Your task to perform on an android device: clear all cookies in the chrome app Image 0: 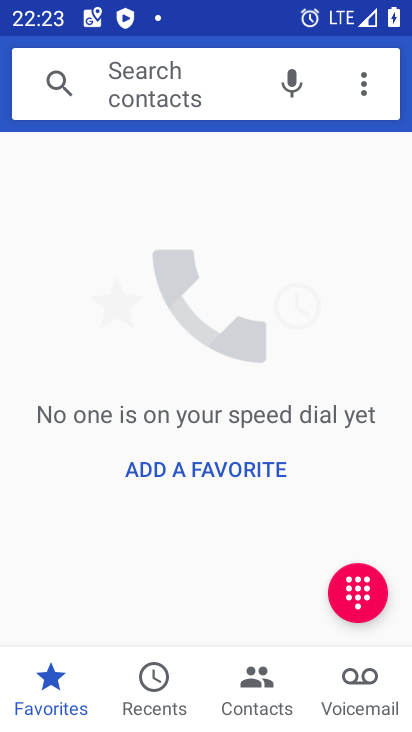
Step 0: press home button
Your task to perform on an android device: clear all cookies in the chrome app Image 1: 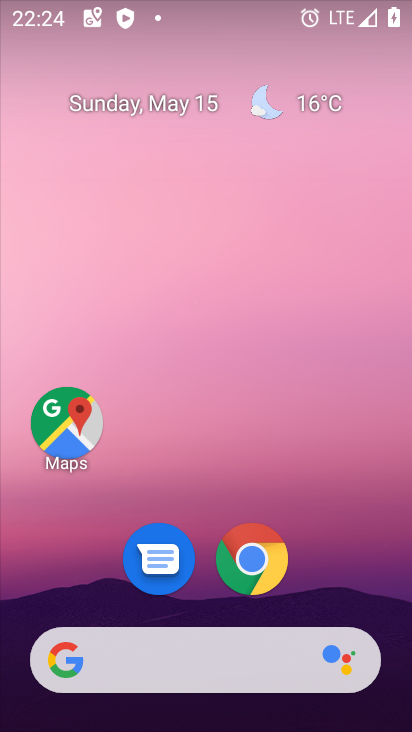
Step 1: click (248, 573)
Your task to perform on an android device: clear all cookies in the chrome app Image 2: 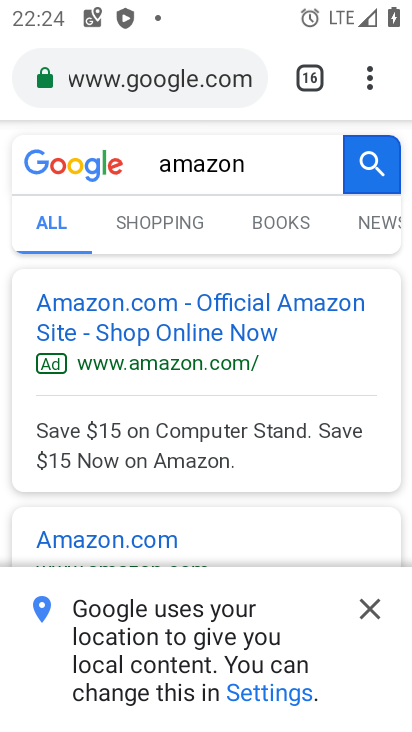
Step 2: click (371, 76)
Your task to perform on an android device: clear all cookies in the chrome app Image 3: 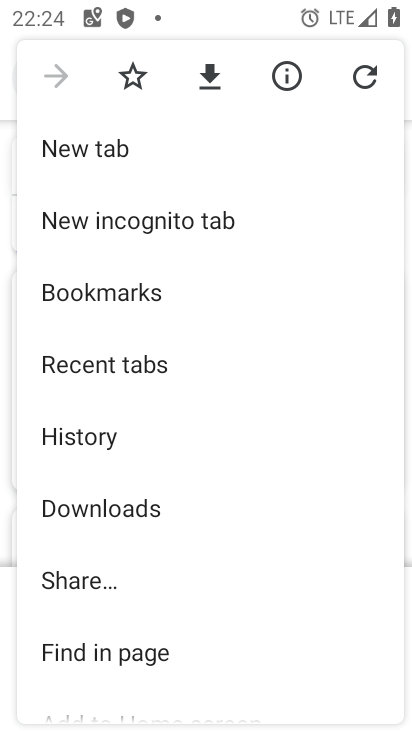
Step 3: drag from (251, 532) to (219, 212)
Your task to perform on an android device: clear all cookies in the chrome app Image 4: 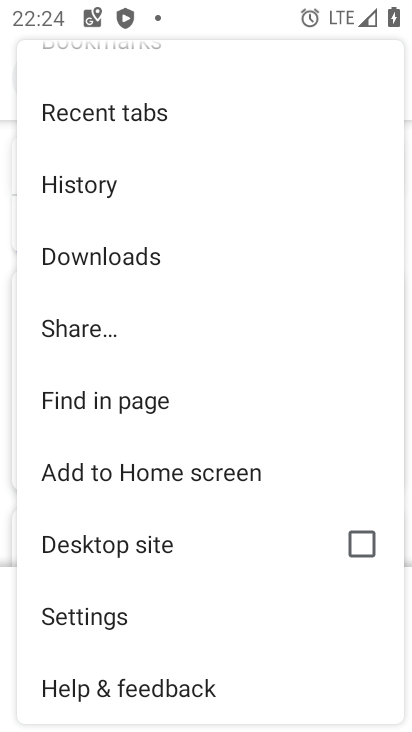
Step 4: click (106, 615)
Your task to perform on an android device: clear all cookies in the chrome app Image 5: 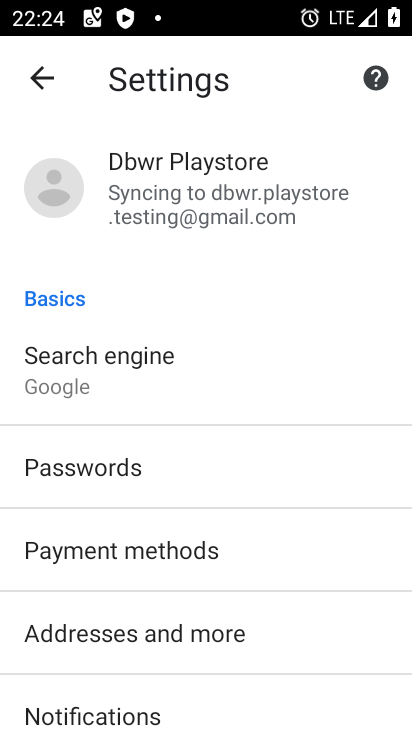
Step 5: drag from (224, 602) to (171, 236)
Your task to perform on an android device: clear all cookies in the chrome app Image 6: 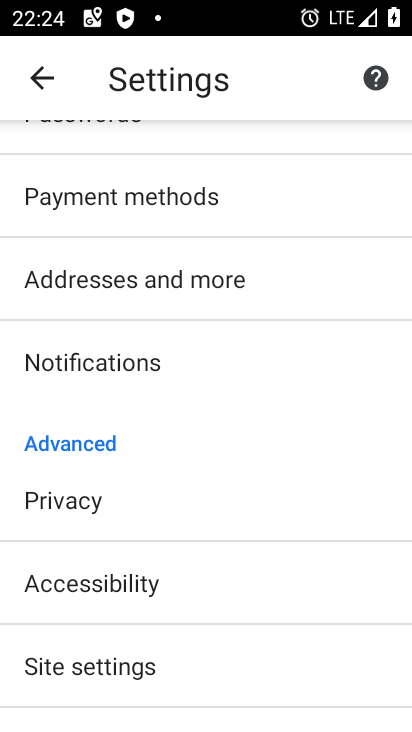
Step 6: click (73, 496)
Your task to perform on an android device: clear all cookies in the chrome app Image 7: 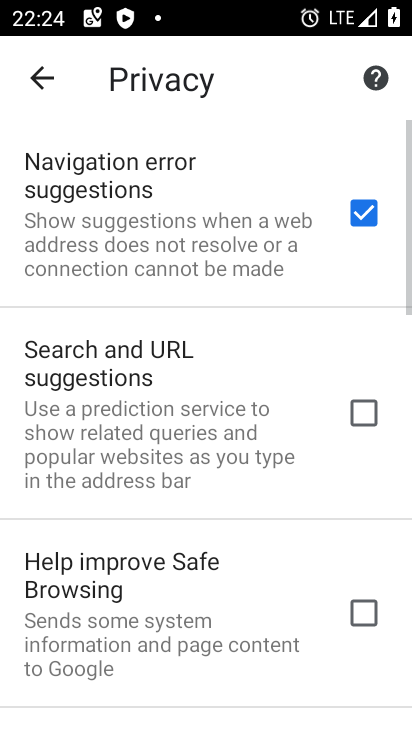
Step 7: drag from (345, 487) to (261, 43)
Your task to perform on an android device: clear all cookies in the chrome app Image 8: 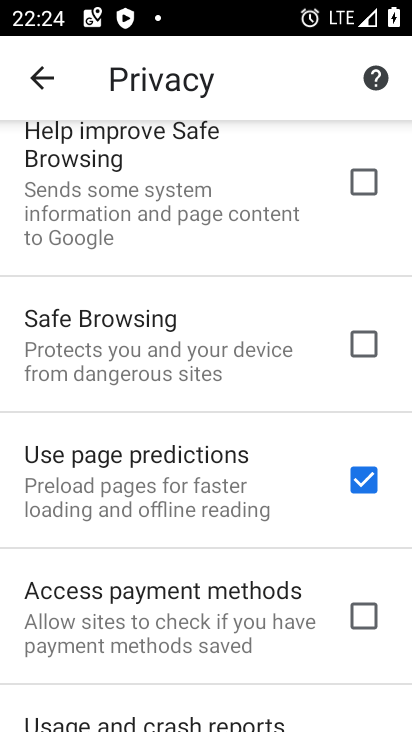
Step 8: drag from (238, 555) to (201, 237)
Your task to perform on an android device: clear all cookies in the chrome app Image 9: 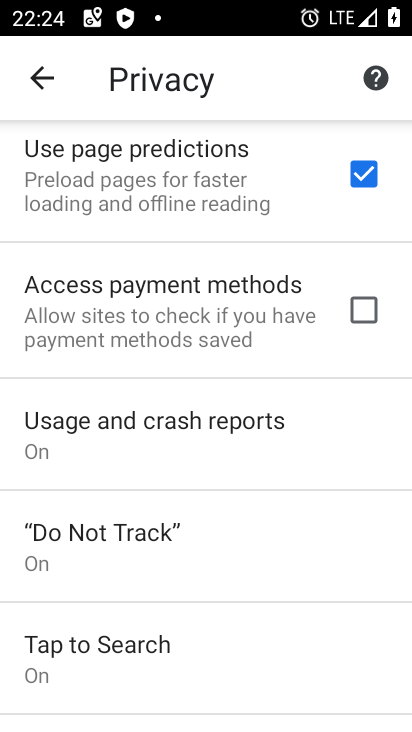
Step 9: drag from (213, 534) to (202, 218)
Your task to perform on an android device: clear all cookies in the chrome app Image 10: 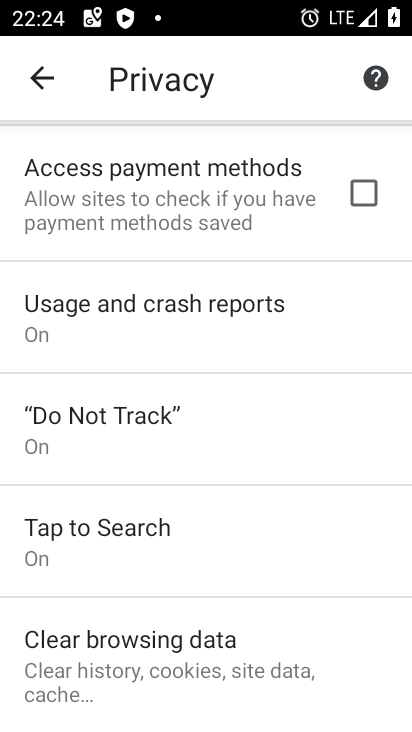
Step 10: click (145, 641)
Your task to perform on an android device: clear all cookies in the chrome app Image 11: 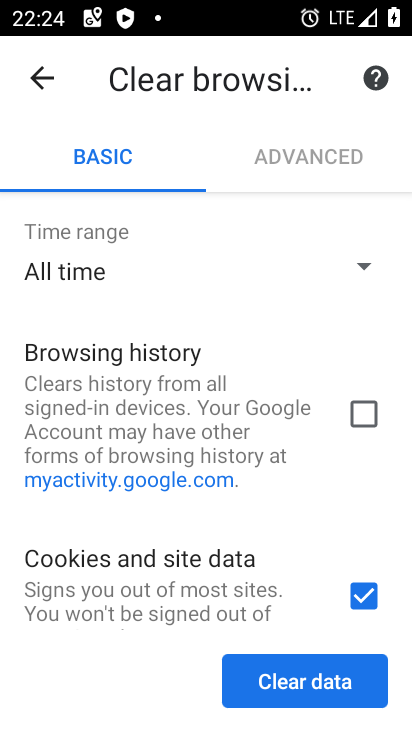
Step 11: drag from (274, 492) to (245, 289)
Your task to perform on an android device: clear all cookies in the chrome app Image 12: 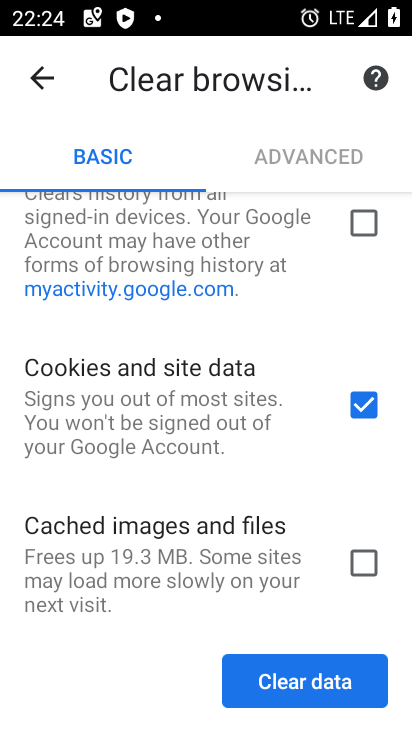
Step 12: drag from (245, 289) to (280, 496)
Your task to perform on an android device: clear all cookies in the chrome app Image 13: 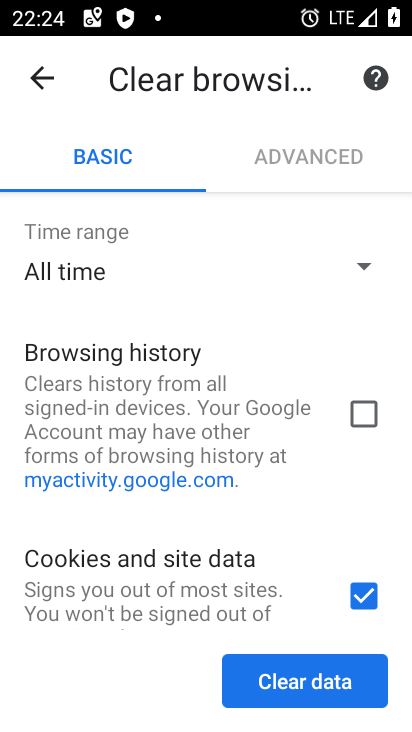
Step 13: drag from (280, 496) to (271, 368)
Your task to perform on an android device: clear all cookies in the chrome app Image 14: 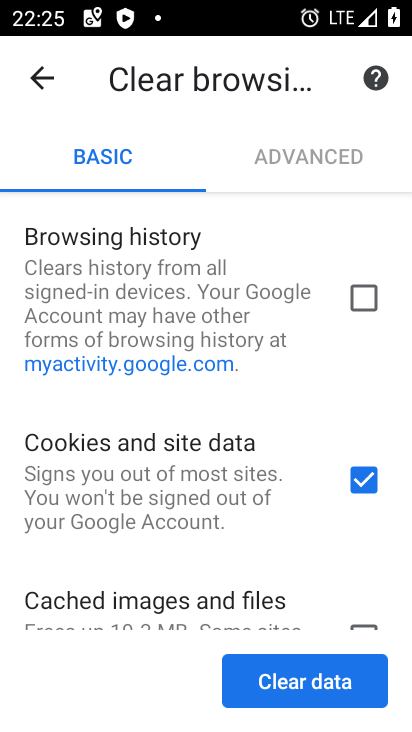
Step 14: click (303, 690)
Your task to perform on an android device: clear all cookies in the chrome app Image 15: 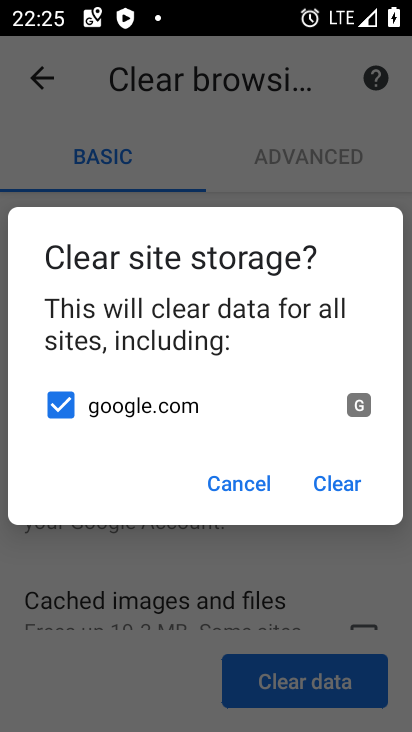
Step 15: click (338, 482)
Your task to perform on an android device: clear all cookies in the chrome app Image 16: 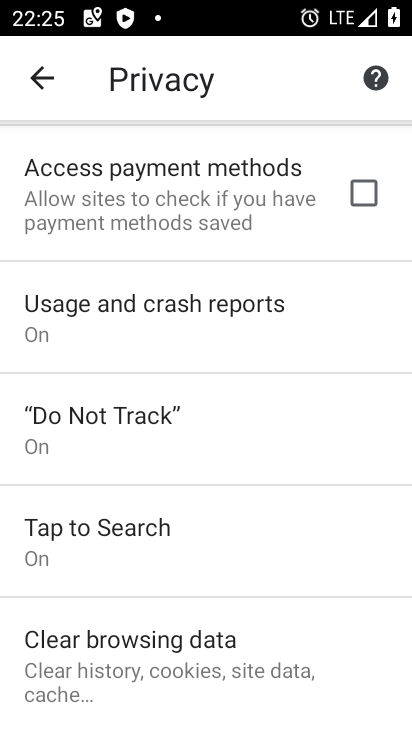
Step 16: task complete